Your task to perform on an android device: toggle pop-ups in chrome Image 0: 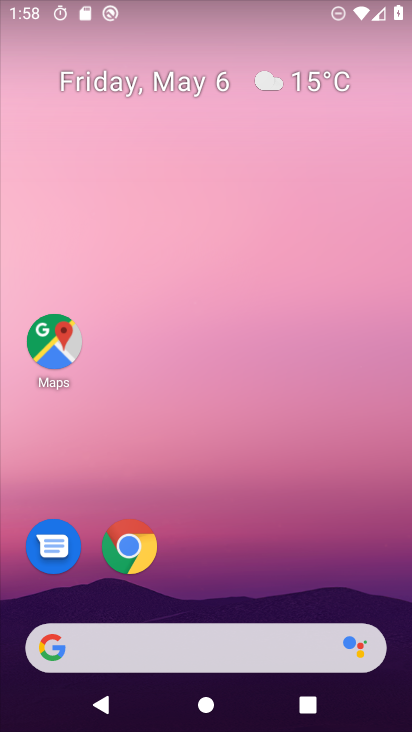
Step 0: click (130, 552)
Your task to perform on an android device: toggle pop-ups in chrome Image 1: 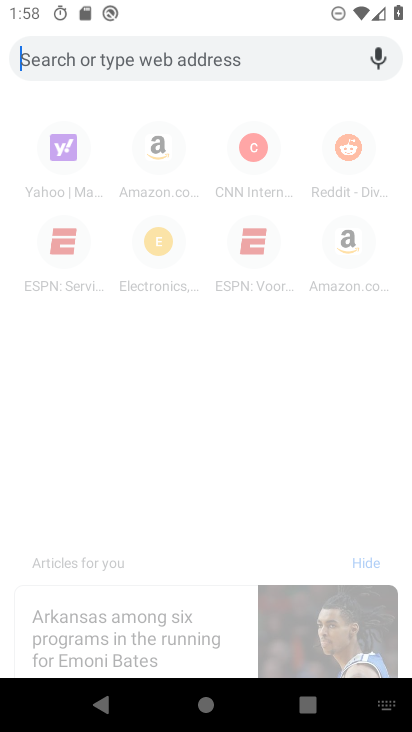
Step 1: press back button
Your task to perform on an android device: toggle pop-ups in chrome Image 2: 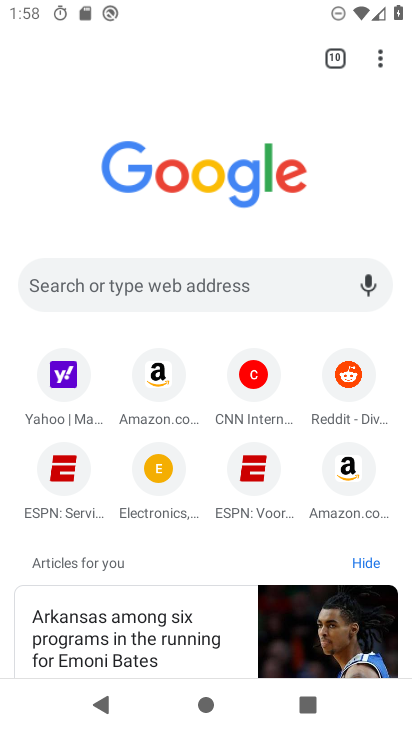
Step 2: click (383, 57)
Your task to perform on an android device: toggle pop-ups in chrome Image 3: 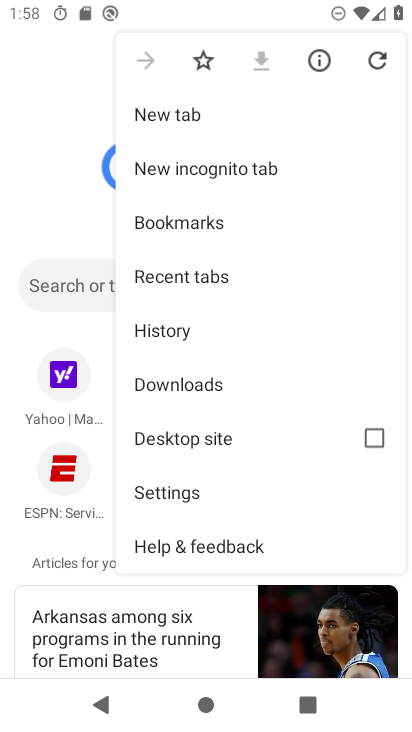
Step 3: click (214, 493)
Your task to perform on an android device: toggle pop-ups in chrome Image 4: 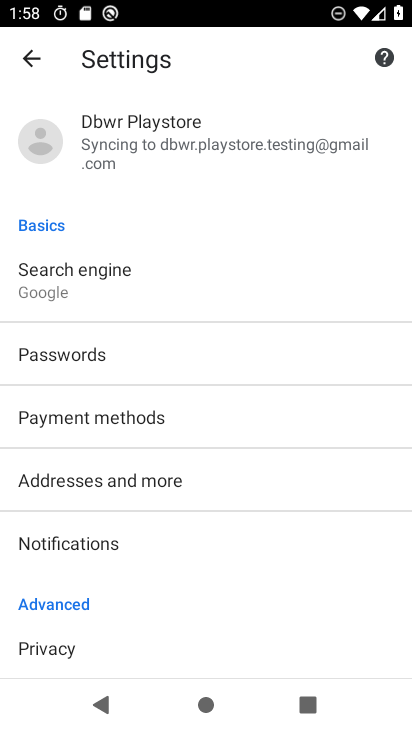
Step 4: drag from (135, 625) to (164, 324)
Your task to perform on an android device: toggle pop-ups in chrome Image 5: 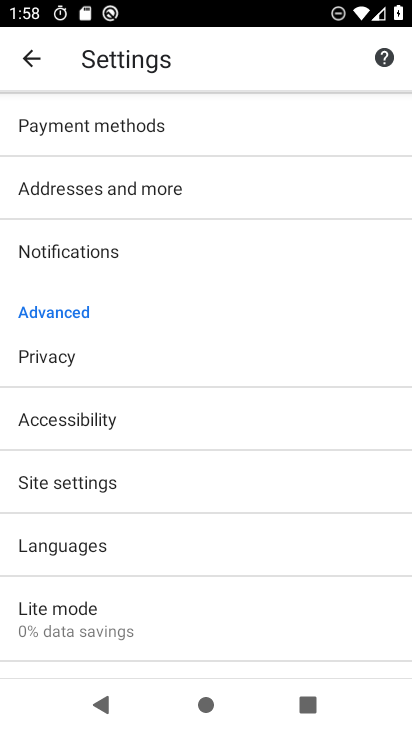
Step 5: click (88, 488)
Your task to perform on an android device: toggle pop-ups in chrome Image 6: 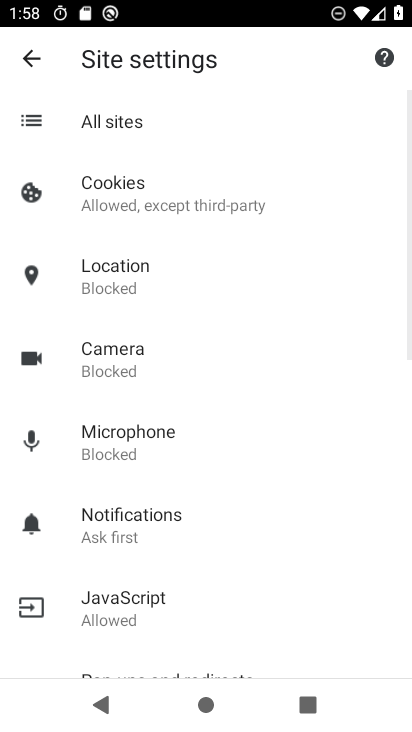
Step 6: drag from (180, 596) to (213, 319)
Your task to perform on an android device: toggle pop-ups in chrome Image 7: 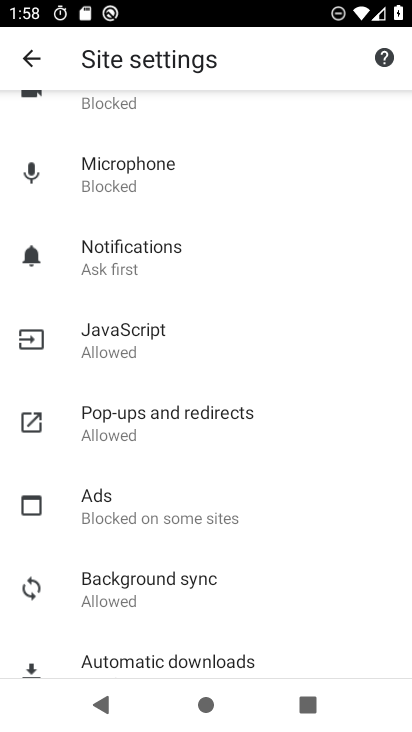
Step 7: click (142, 424)
Your task to perform on an android device: toggle pop-ups in chrome Image 8: 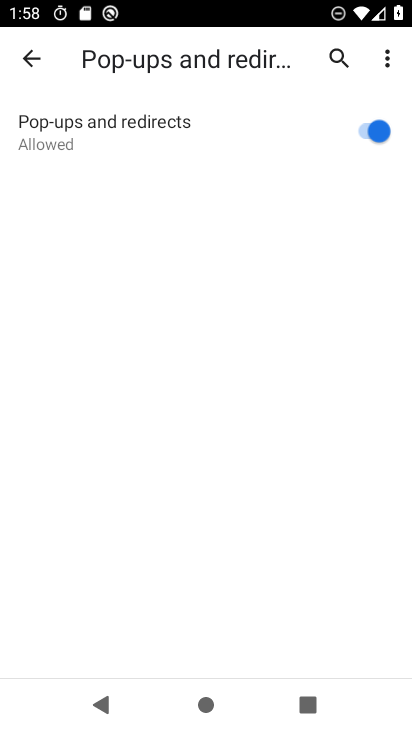
Step 8: click (361, 132)
Your task to perform on an android device: toggle pop-ups in chrome Image 9: 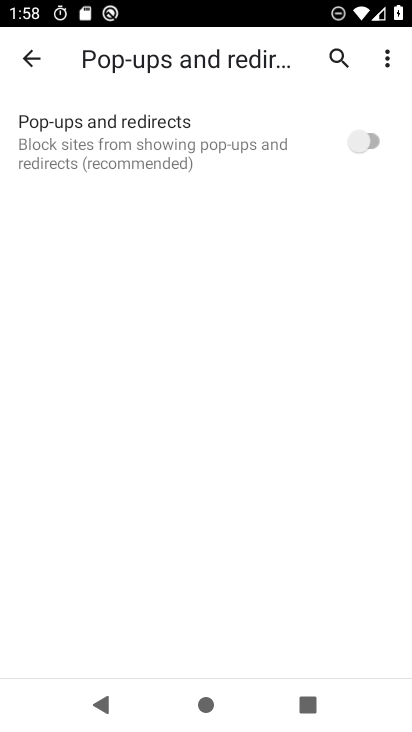
Step 9: task complete